Your task to perform on an android device: see sites visited before in the chrome app Image 0: 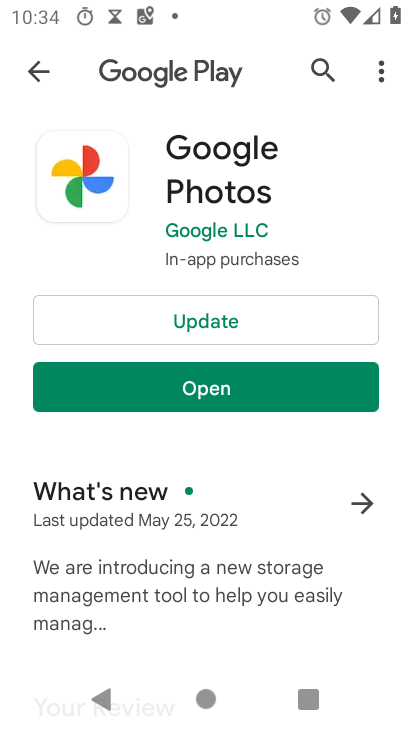
Step 0: press home button
Your task to perform on an android device: see sites visited before in the chrome app Image 1: 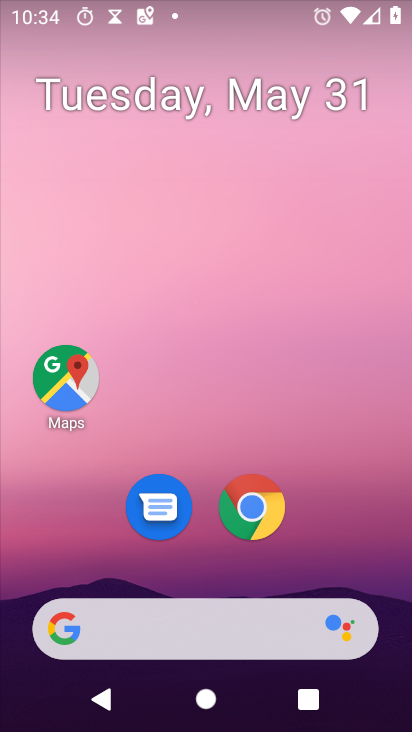
Step 1: click (257, 501)
Your task to perform on an android device: see sites visited before in the chrome app Image 2: 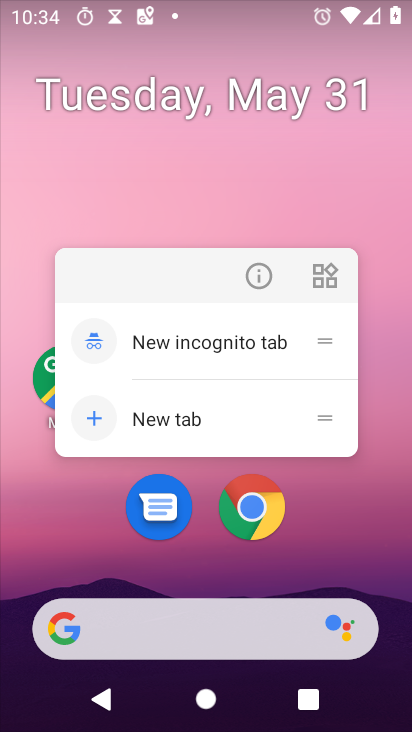
Step 2: click (243, 518)
Your task to perform on an android device: see sites visited before in the chrome app Image 3: 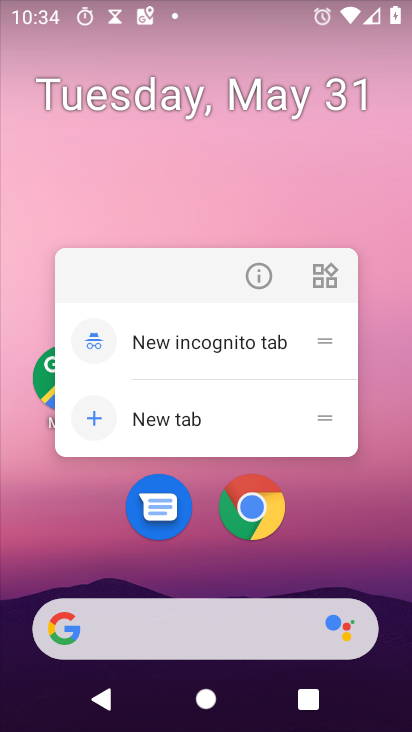
Step 3: click (247, 508)
Your task to perform on an android device: see sites visited before in the chrome app Image 4: 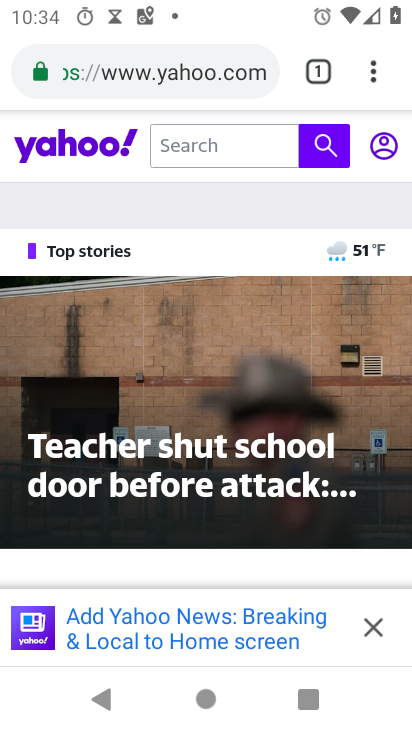
Step 4: click (371, 72)
Your task to perform on an android device: see sites visited before in the chrome app Image 5: 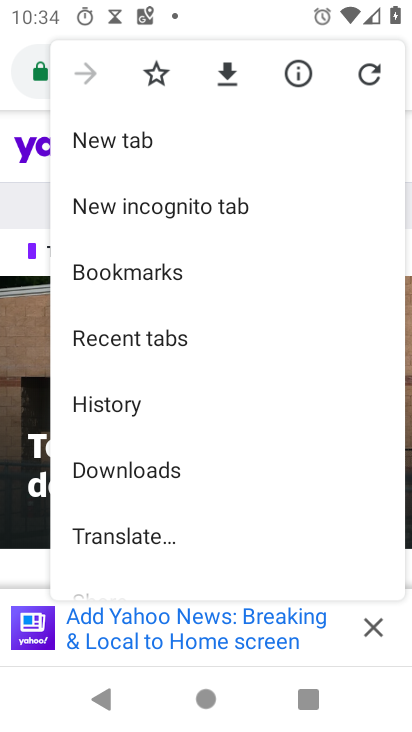
Step 5: click (105, 406)
Your task to perform on an android device: see sites visited before in the chrome app Image 6: 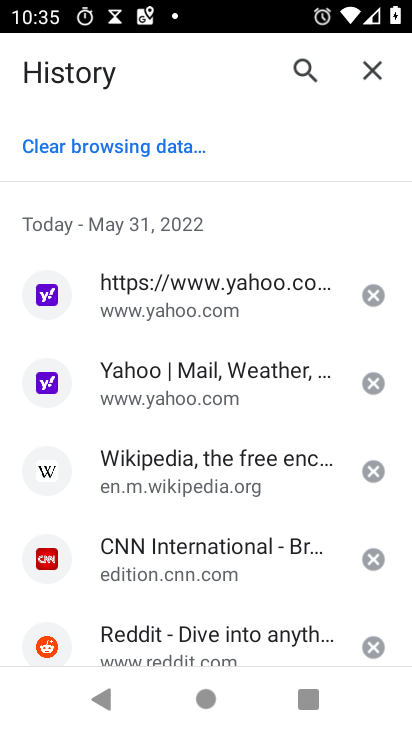
Step 6: task complete